Your task to perform on an android device: move an email to a new category in the gmail app Image 0: 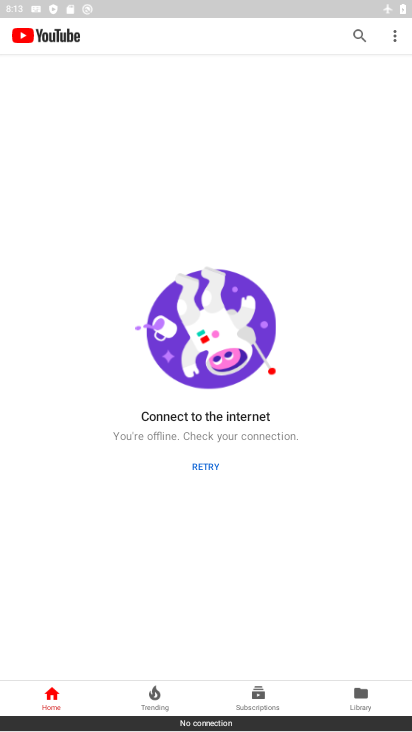
Step 0: press home button
Your task to perform on an android device: move an email to a new category in the gmail app Image 1: 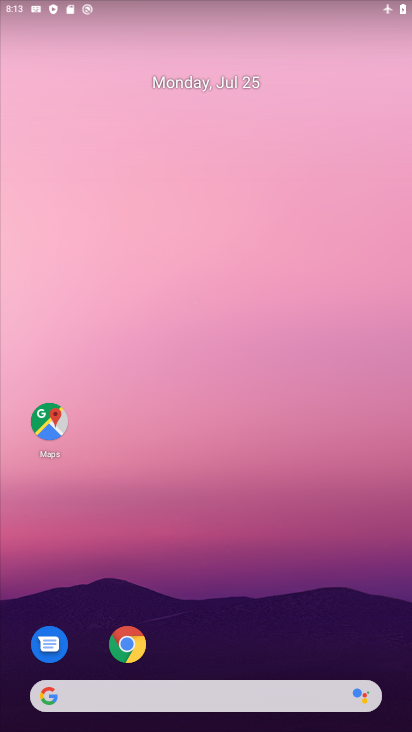
Step 1: drag from (238, 660) to (220, 154)
Your task to perform on an android device: move an email to a new category in the gmail app Image 2: 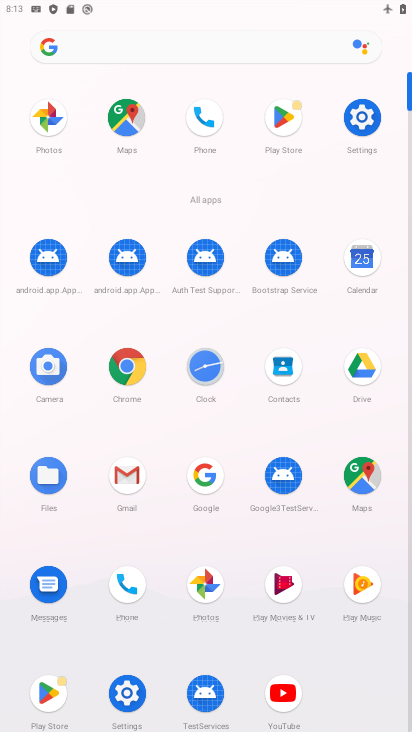
Step 2: click (126, 476)
Your task to perform on an android device: move an email to a new category in the gmail app Image 3: 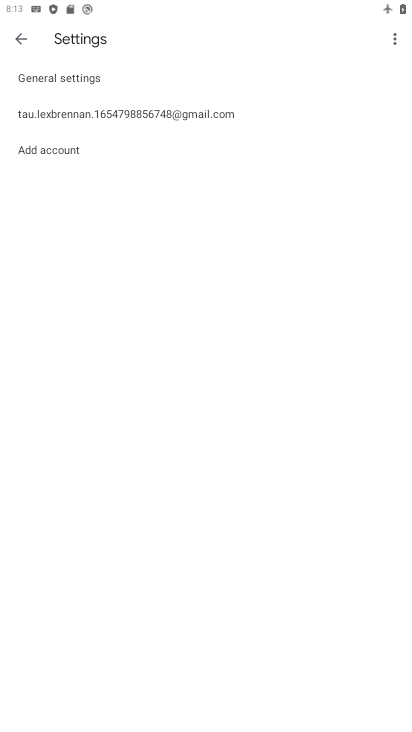
Step 3: click (19, 38)
Your task to perform on an android device: move an email to a new category in the gmail app Image 4: 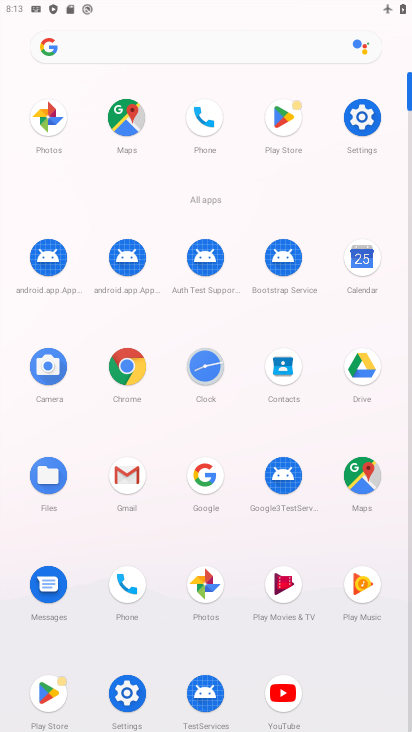
Step 4: click (121, 475)
Your task to perform on an android device: move an email to a new category in the gmail app Image 5: 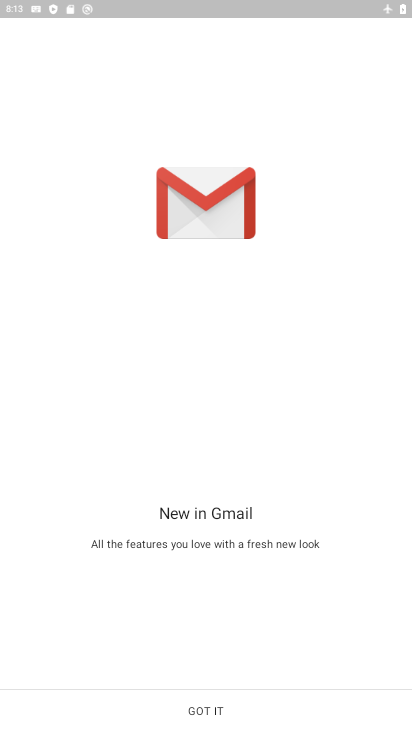
Step 5: click (233, 712)
Your task to perform on an android device: move an email to a new category in the gmail app Image 6: 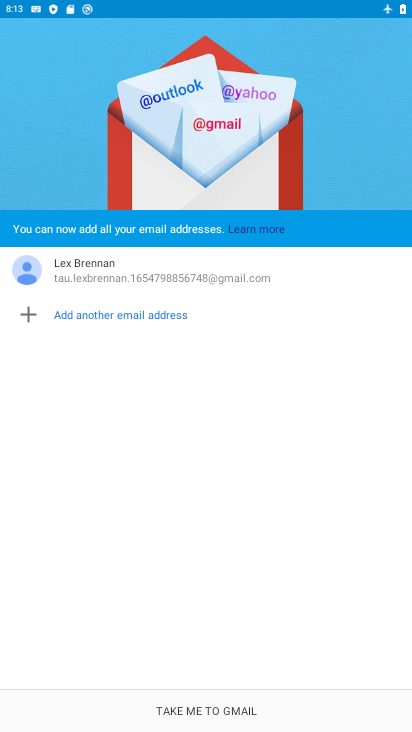
Step 6: click (238, 714)
Your task to perform on an android device: move an email to a new category in the gmail app Image 7: 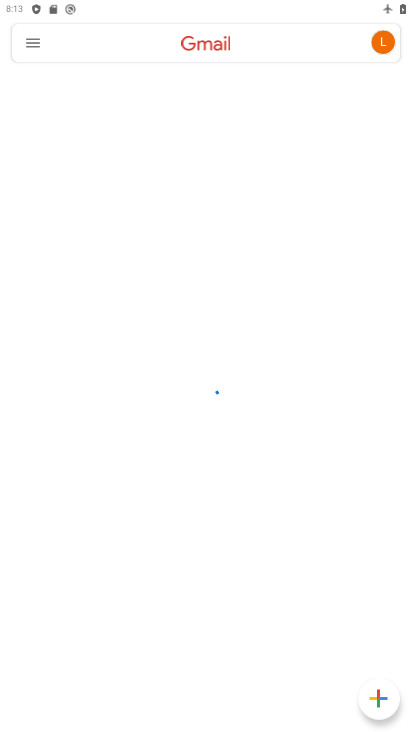
Step 7: click (23, 42)
Your task to perform on an android device: move an email to a new category in the gmail app Image 8: 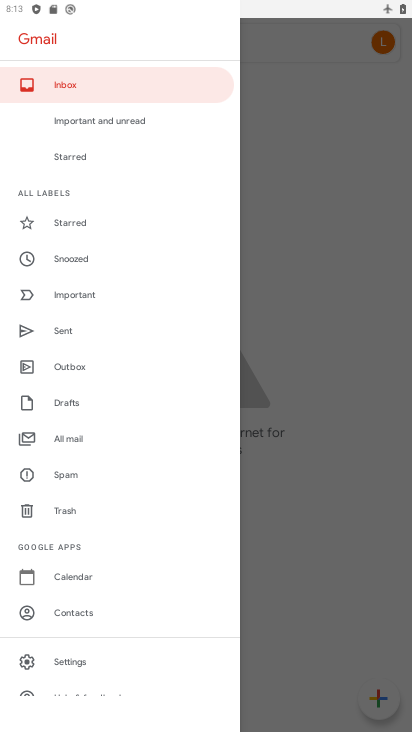
Step 8: click (91, 430)
Your task to perform on an android device: move an email to a new category in the gmail app Image 9: 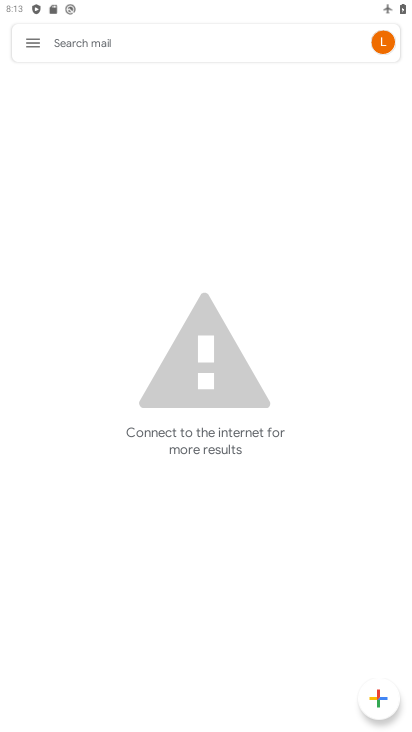
Step 9: task complete